Your task to perform on an android device: turn off javascript in the chrome app Image 0: 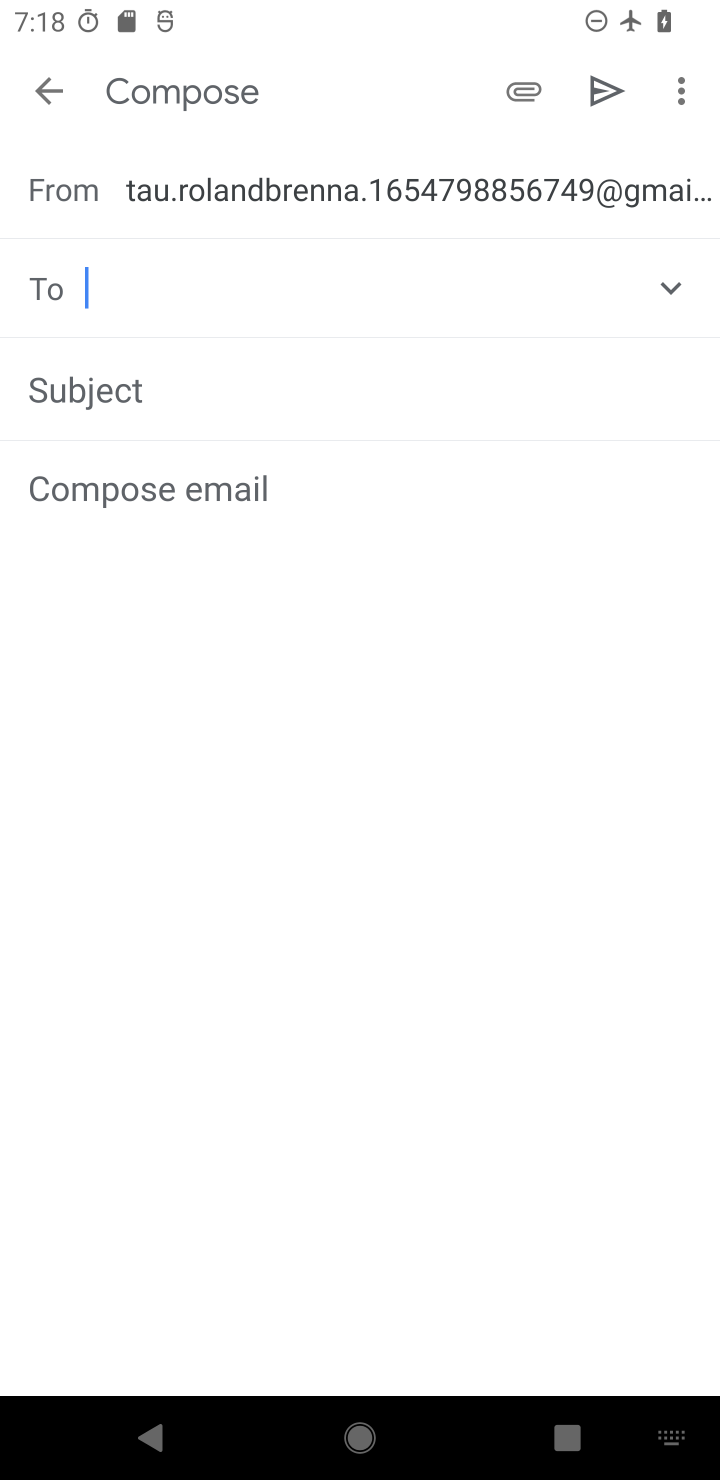
Step 0: press home button
Your task to perform on an android device: turn off javascript in the chrome app Image 1: 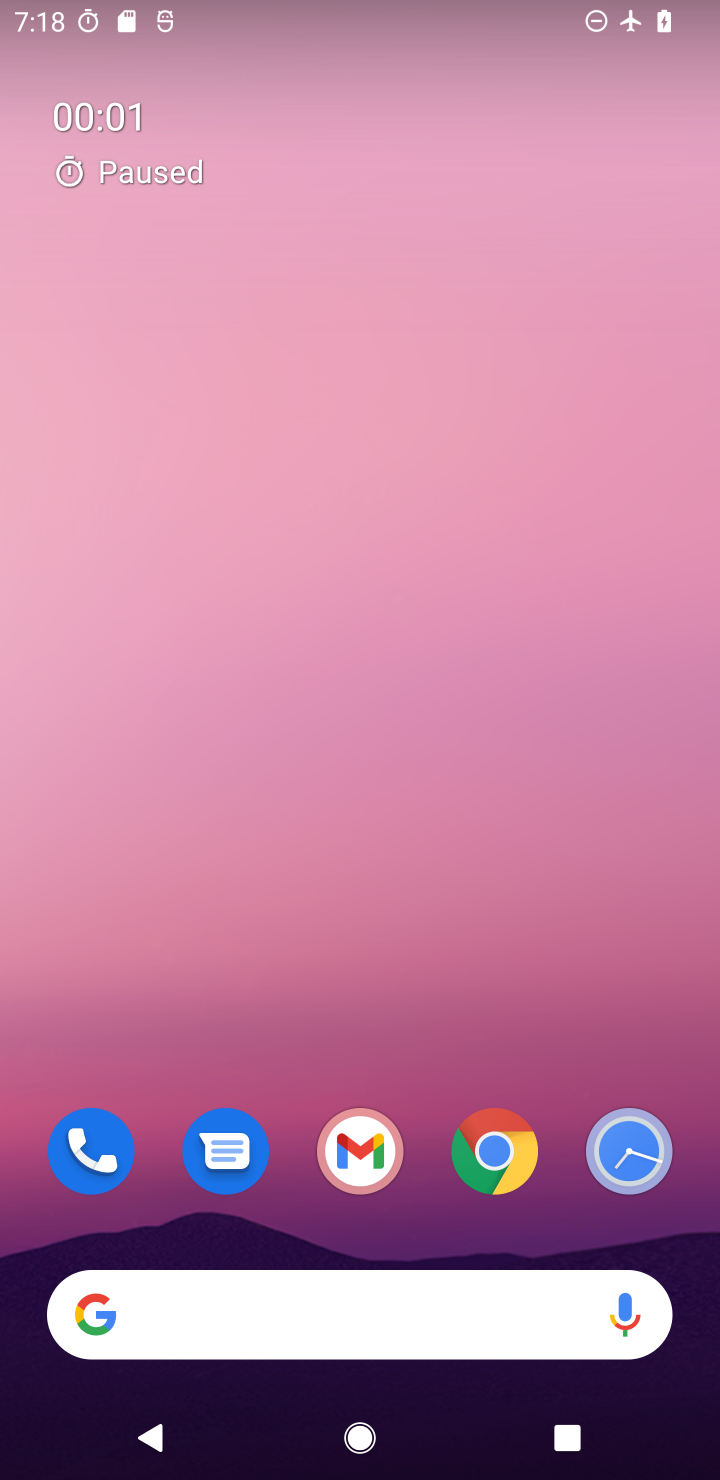
Step 1: drag from (494, 1015) to (563, 1)
Your task to perform on an android device: turn off javascript in the chrome app Image 2: 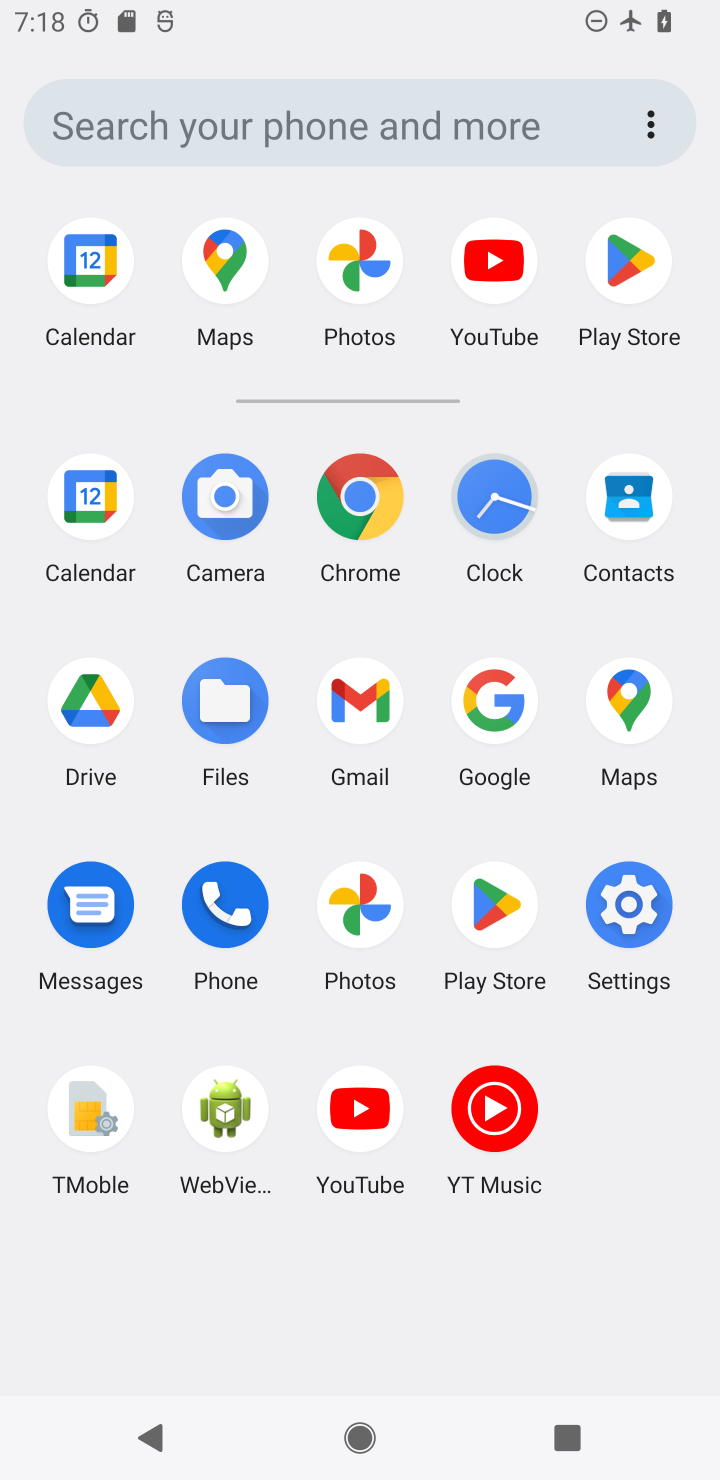
Step 2: click (352, 498)
Your task to perform on an android device: turn off javascript in the chrome app Image 3: 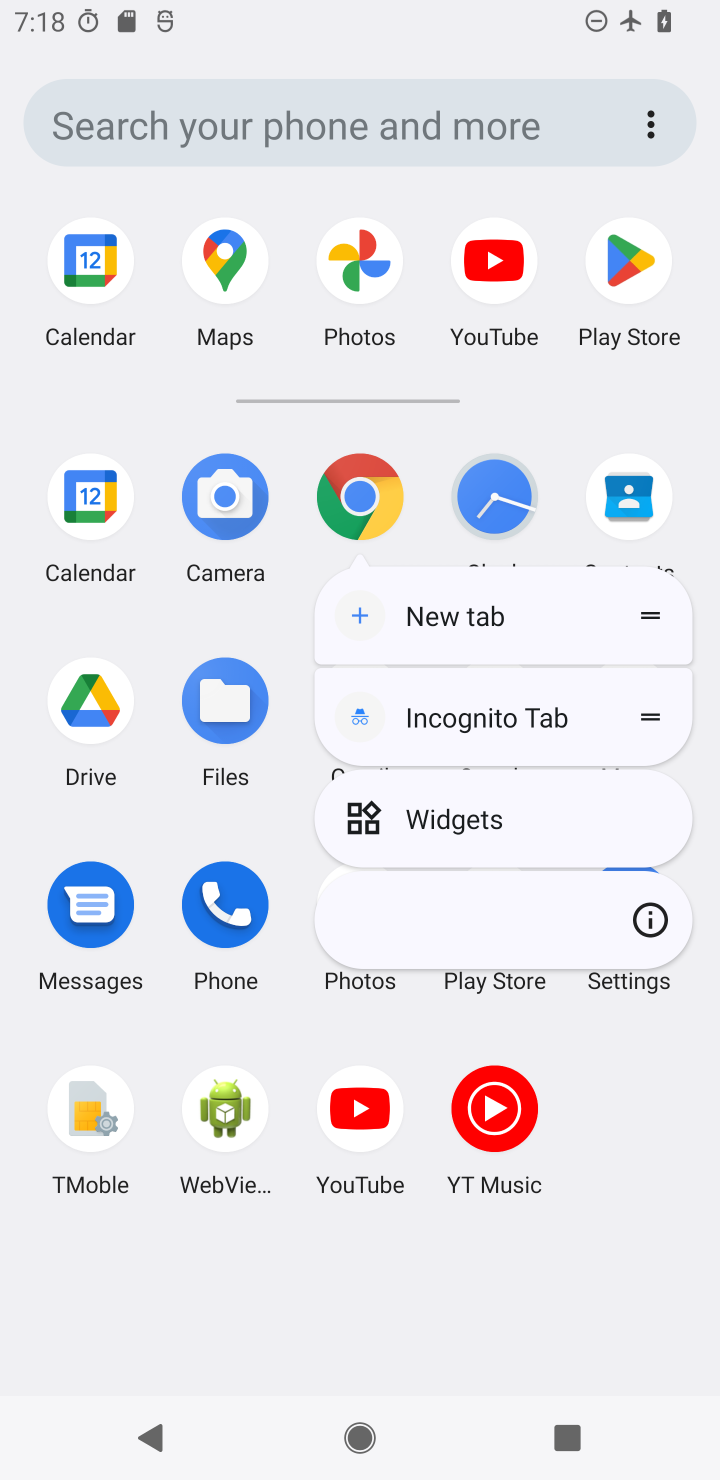
Step 3: click (361, 494)
Your task to perform on an android device: turn off javascript in the chrome app Image 4: 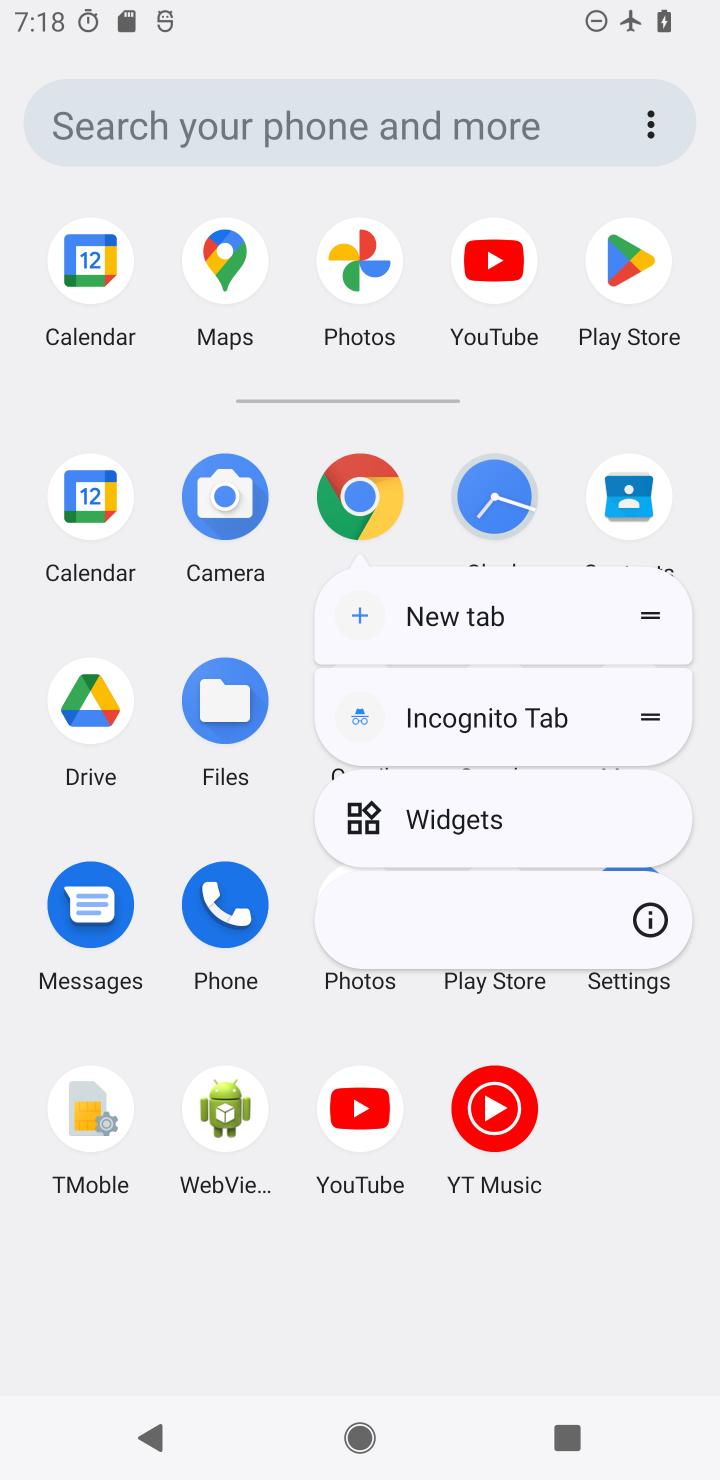
Step 4: click (361, 494)
Your task to perform on an android device: turn off javascript in the chrome app Image 5: 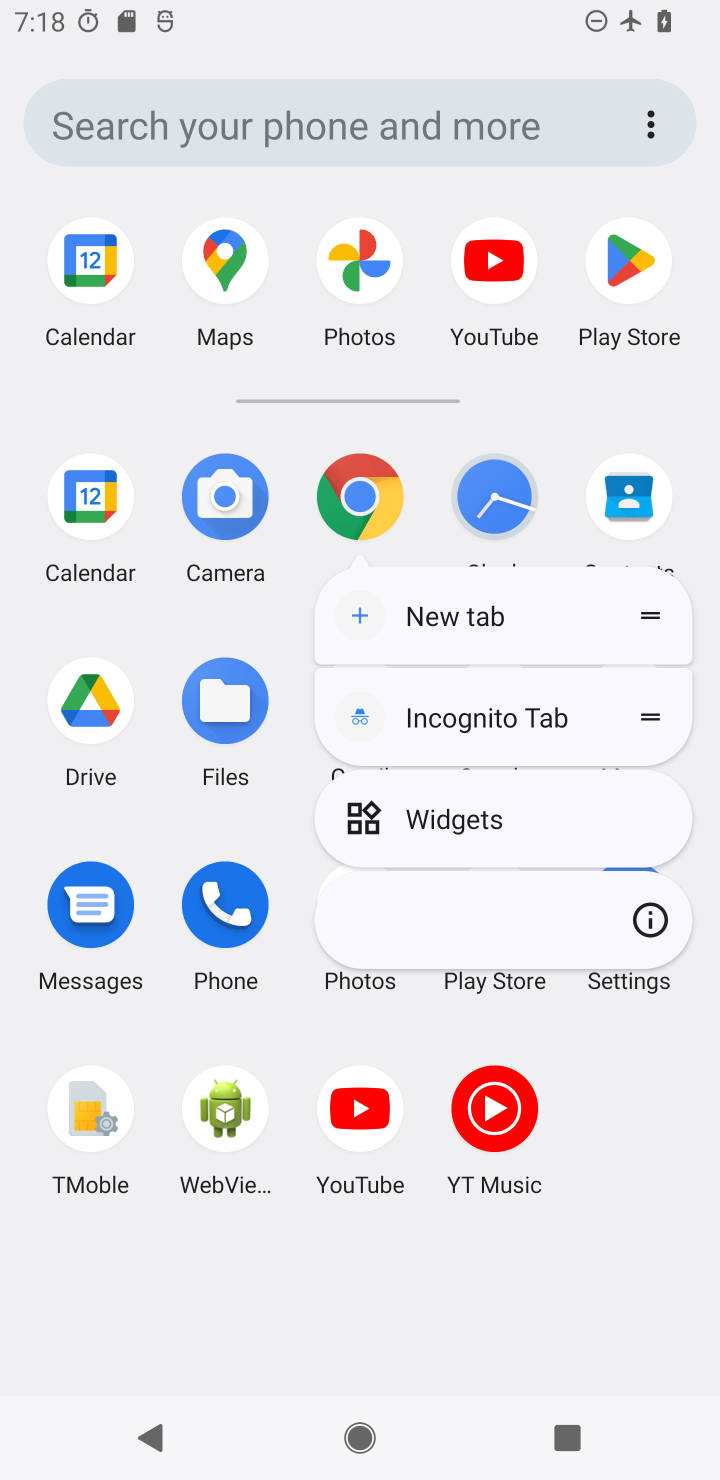
Step 5: click (434, 418)
Your task to perform on an android device: turn off javascript in the chrome app Image 6: 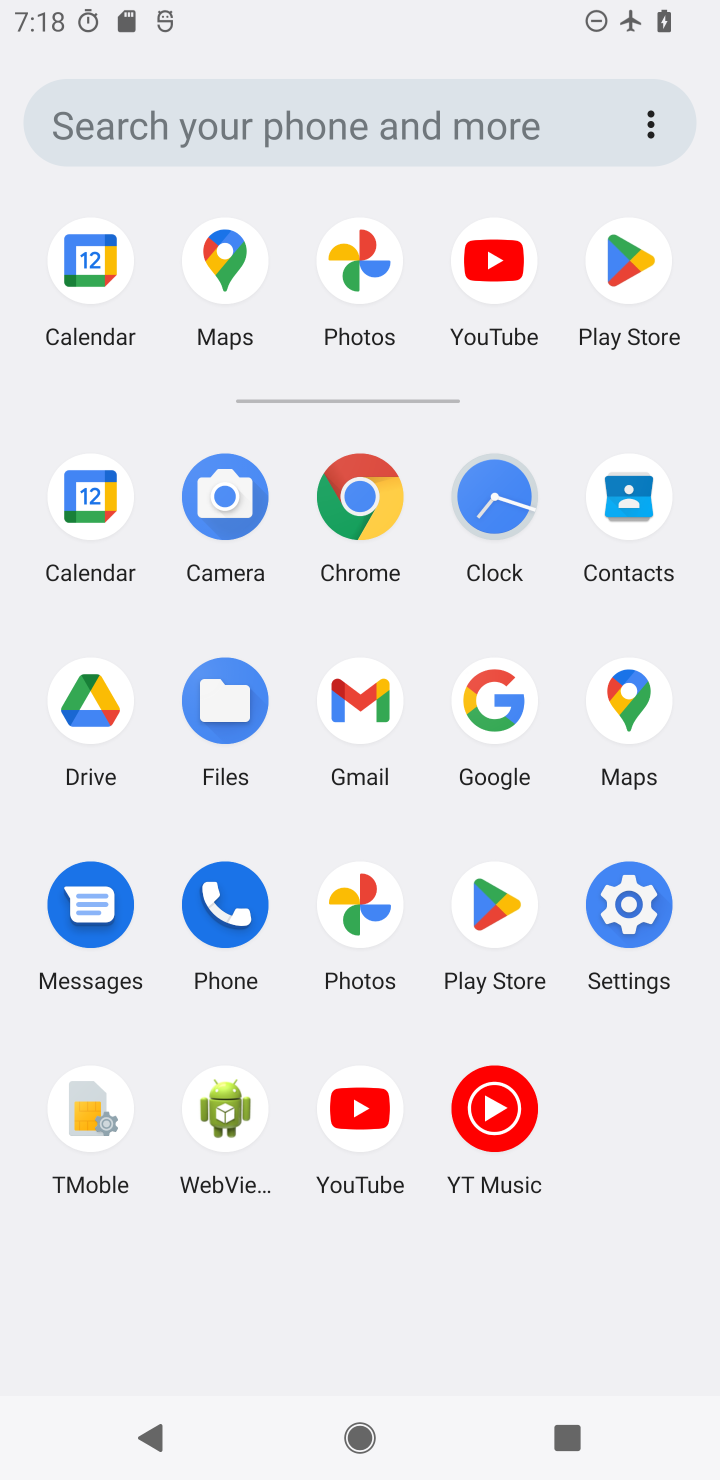
Step 6: click (357, 476)
Your task to perform on an android device: turn off javascript in the chrome app Image 7: 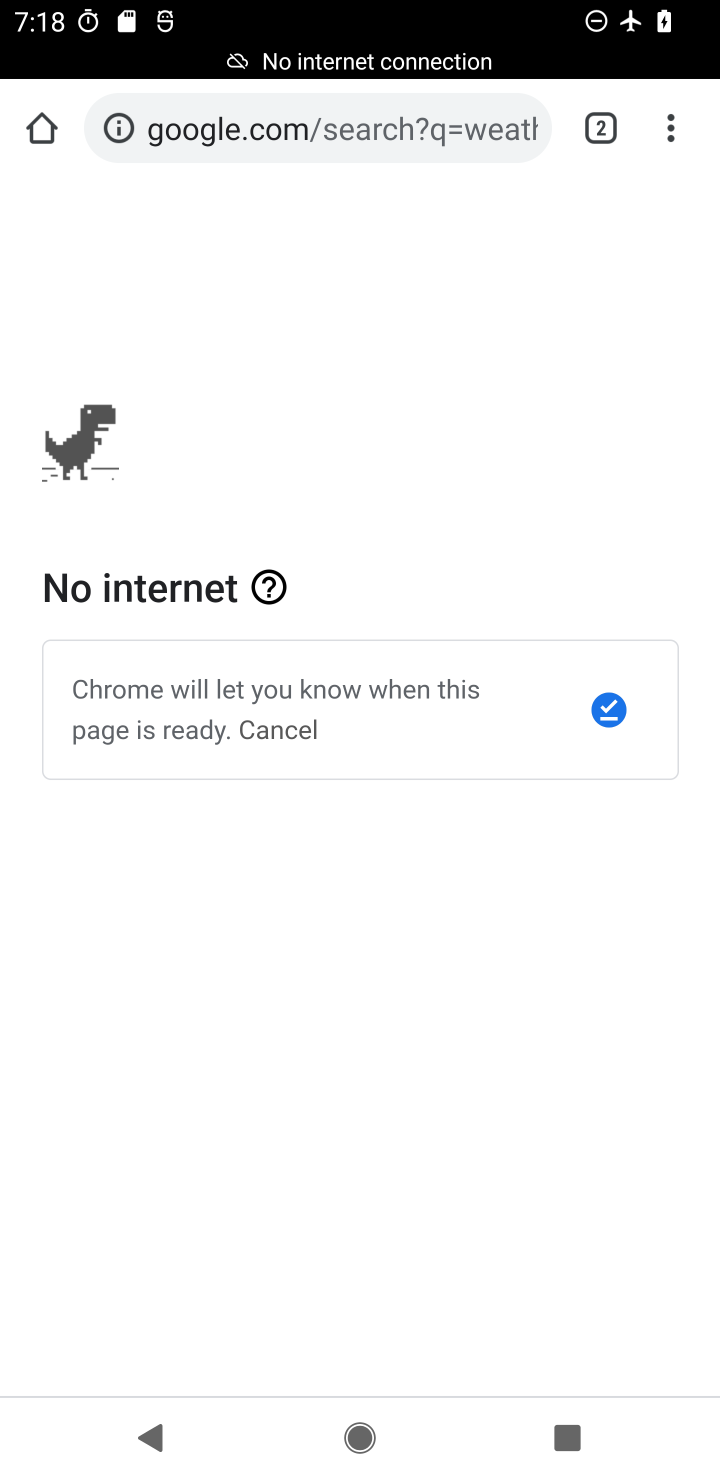
Step 7: drag from (689, 123) to (412, 1246)
Your task to perform on an android device: turn off javascript in the chrome app Image 8: 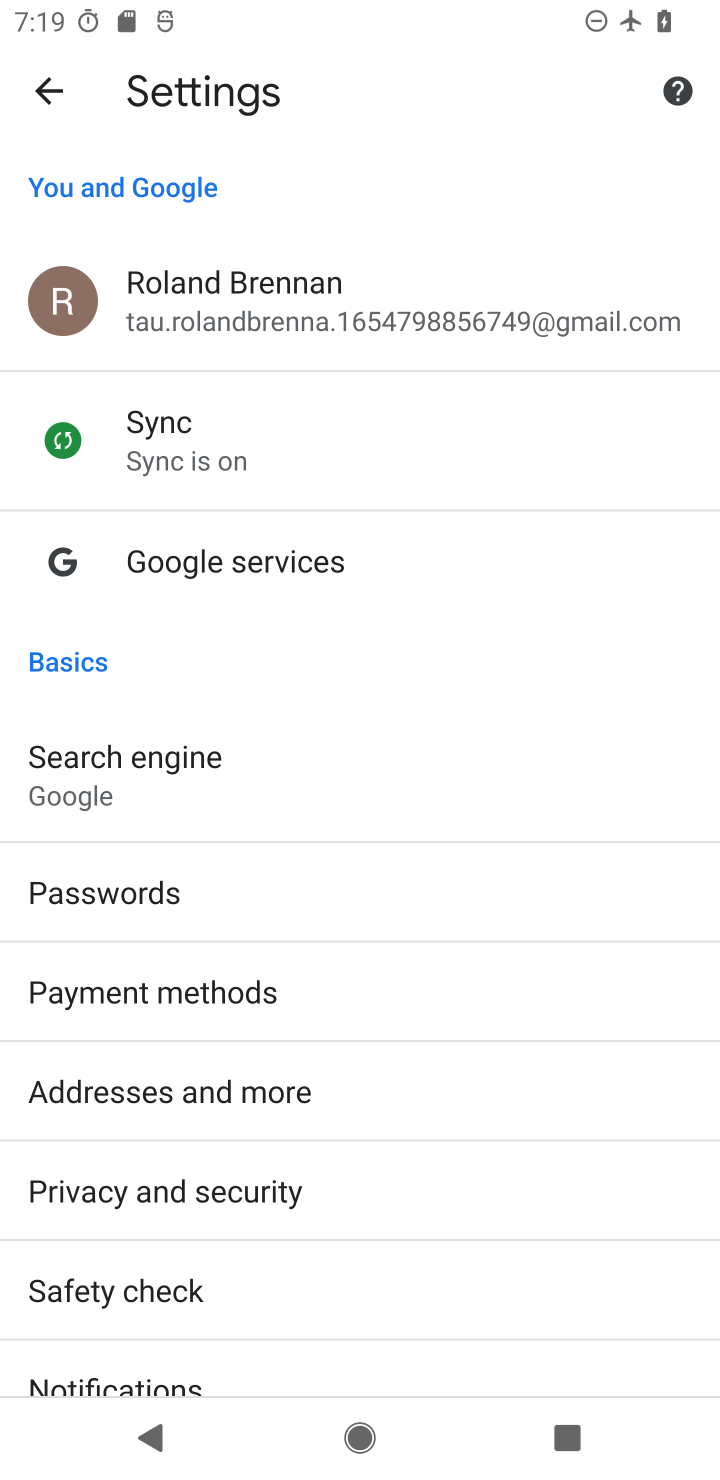
Step 8: drag from (287, 1319) to (429, 545)
Your task to perform on an android device: turn off javascript in the chrome app Image 9: 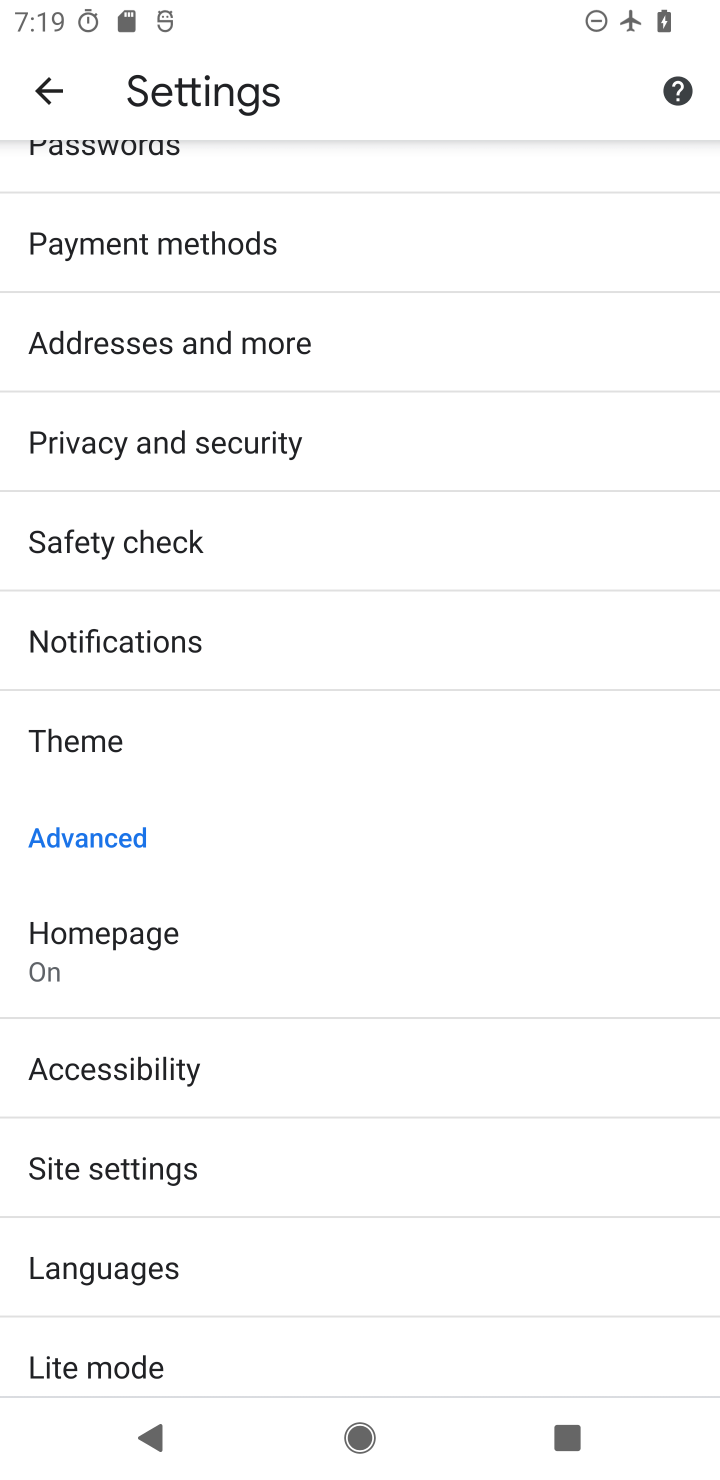
Step 9: click (164, 1195)
Your task to perform on an android device: turn off javascript in the chrome app Image 10: 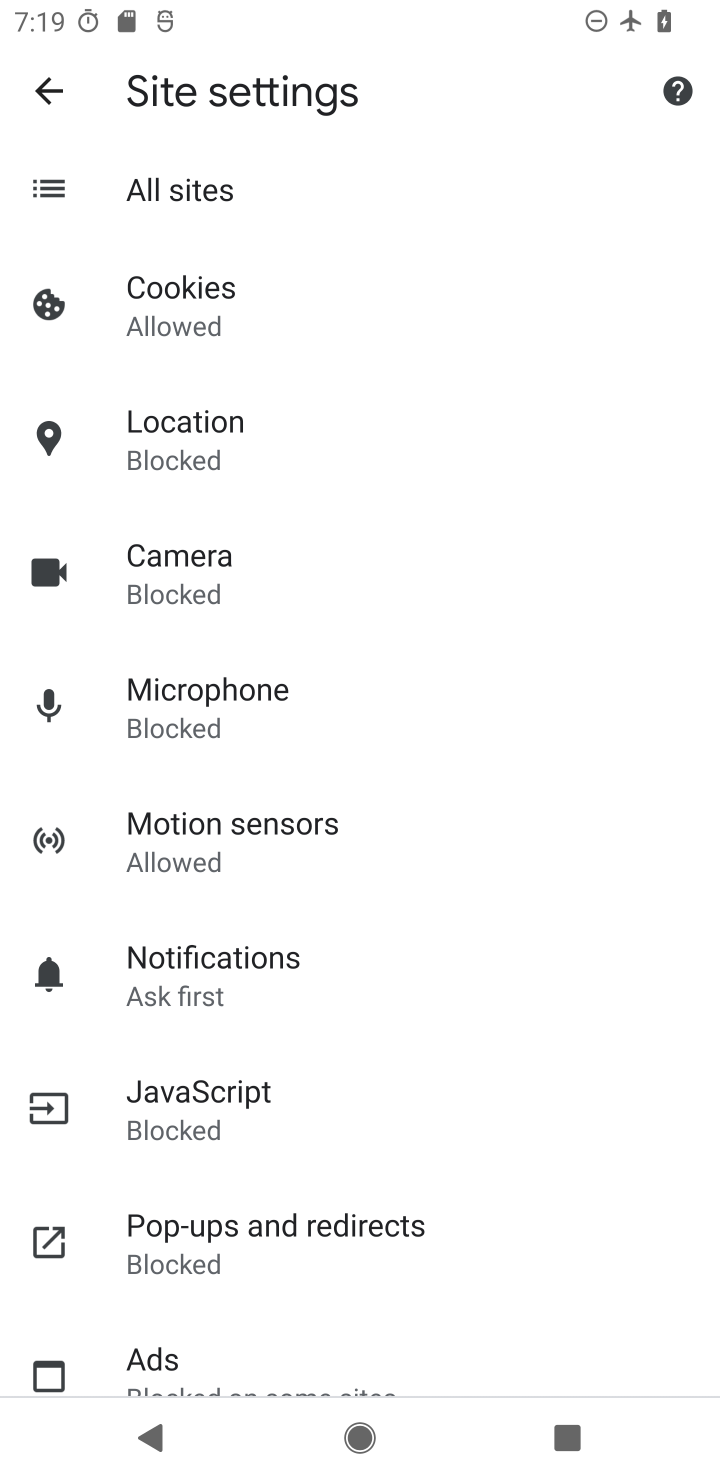
Step 10: click (143, 1126)
Your task to perform on an android device: turn off javascript in the chrome app Image 11: 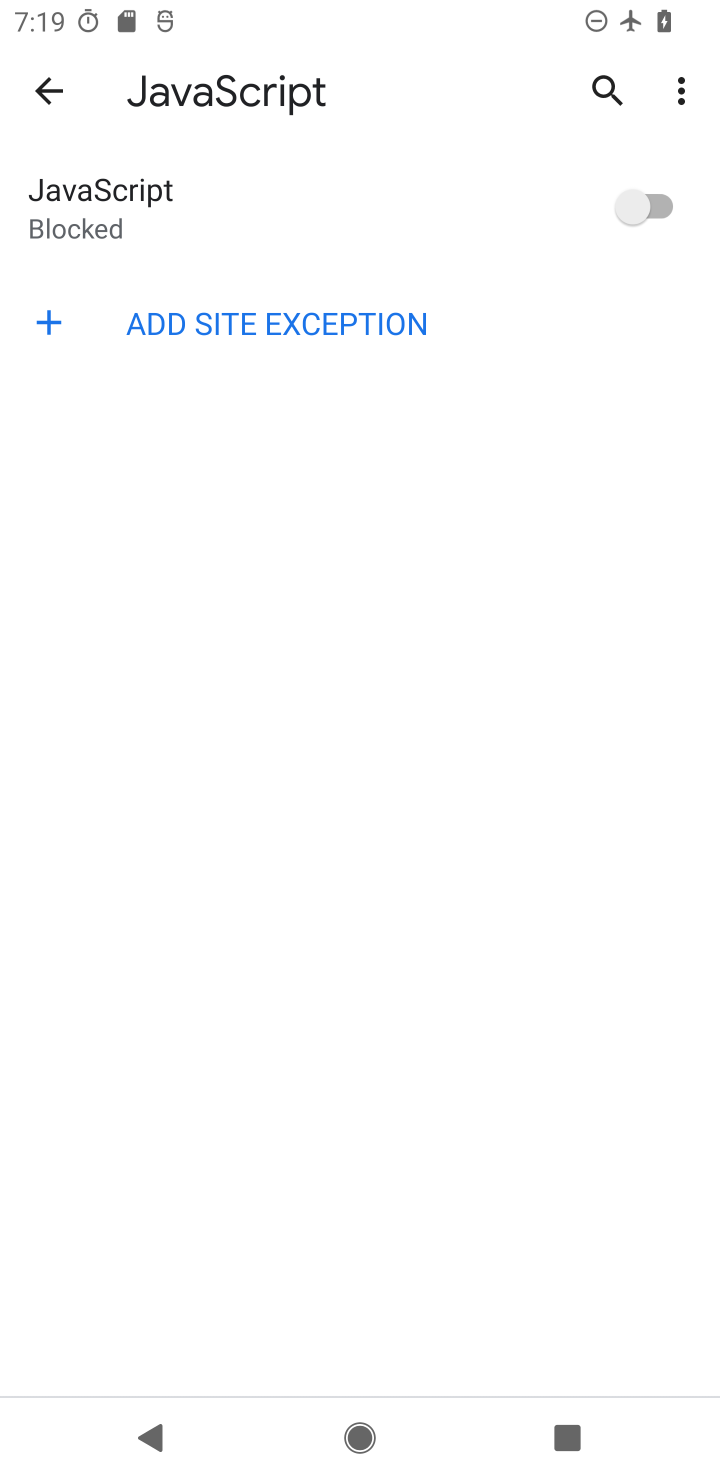
Step 11: task complete